Your task to perform on an android device: Open maps Image 0: 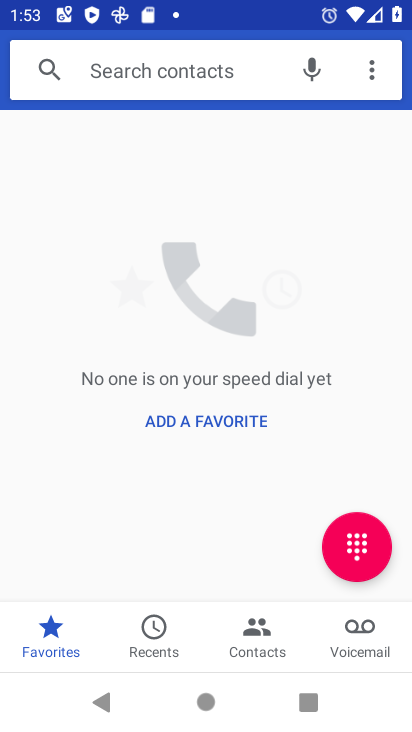
Step 0: press home button
Your task to perform on an android device: Open maps Image 1: 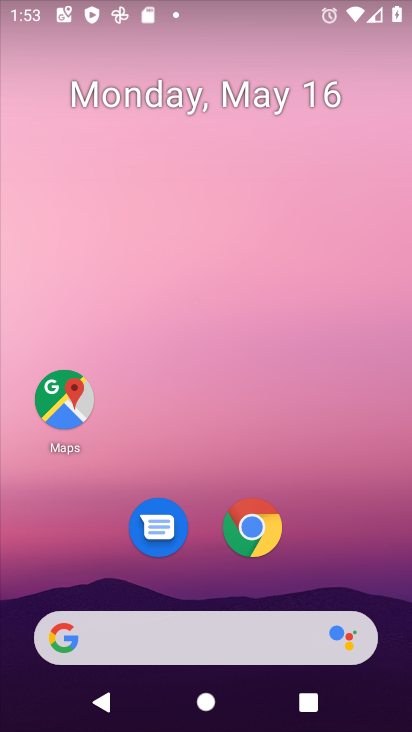
Step 1: click (56, 401)
Your task to perform on an android device: Open maps Image 2: 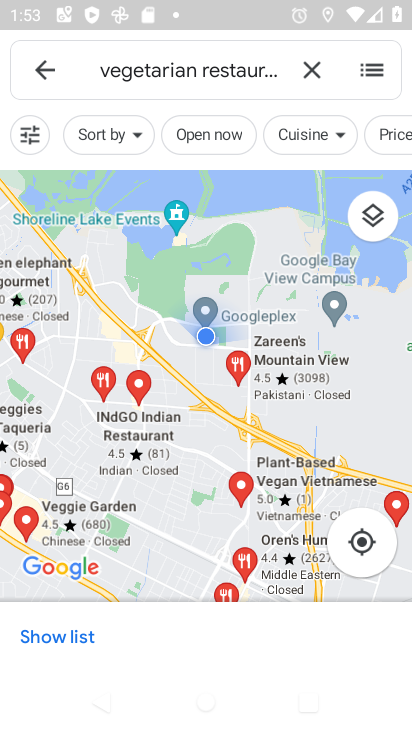
Step 2: task complete